Your task to perform on an android device: Go to ESPN.com Image 0: 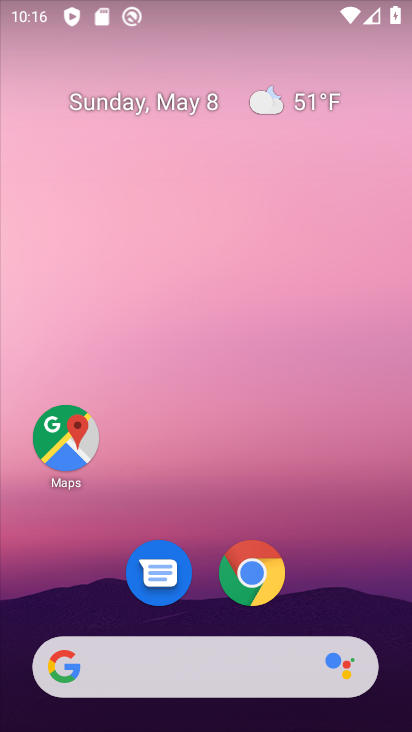
Step 0: click (243, 580)
Your task to perform on an android device: Go to ESPN.com Image 1: 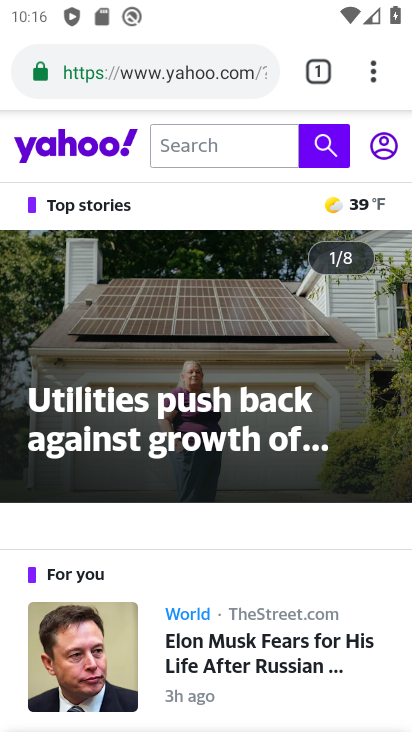
Step 1: click (330, 76)
Your task to perform on an android device: Go to ESPN.com Image 2: 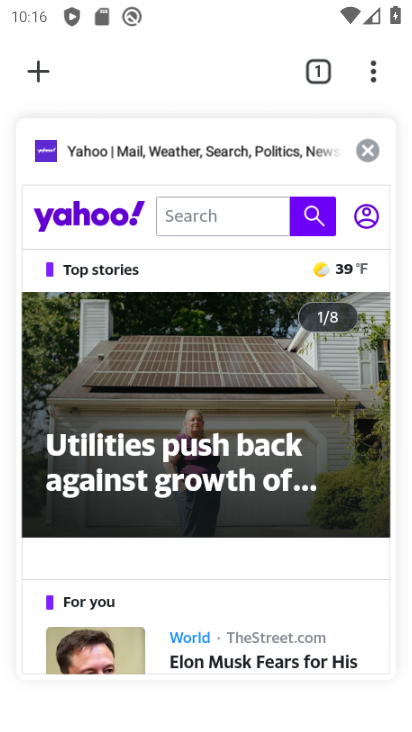
Step 2: click (372, 156)
Your task to perform on an android device: Go to ESPN.com Image 3: 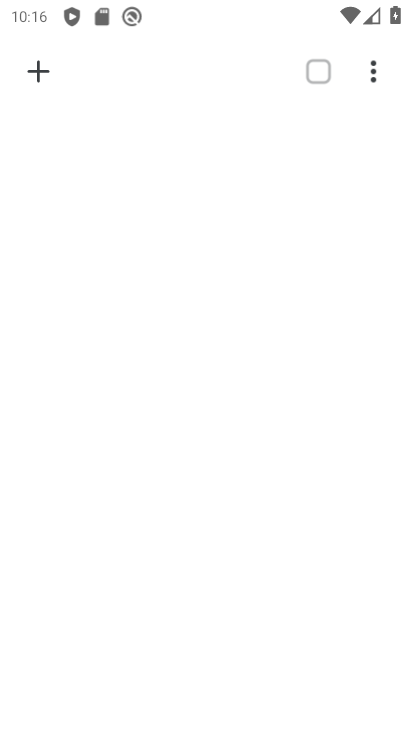
Step 3: click (27, 78)
Your task to perform on an android device: Go to ESPN.com Image 4: 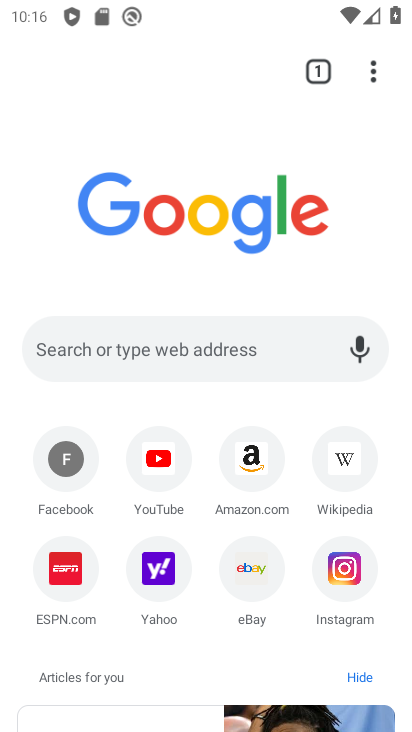
Step 4: click (75, 563)
Your task to perform on an android device: Go to ESPN.com Image 5: 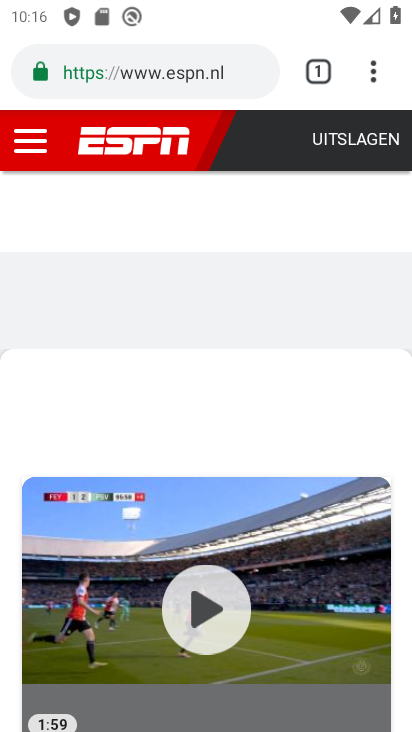
Step 5: task complete